Your task to perform on an android device: Go to Yahoo.com Image 0: 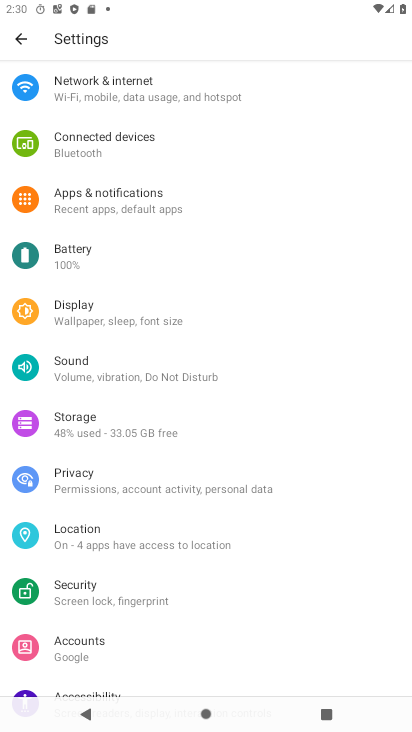
Step 0: press home button
Your task to perform on an android device: Go to Yahoo.com Image 1: 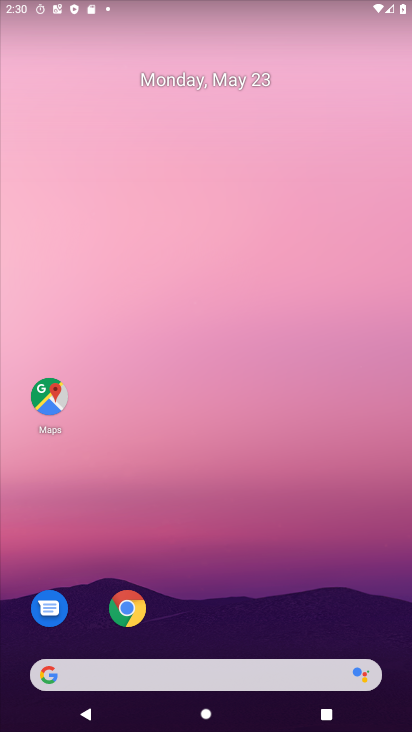
Step 1: click (126, 600)
Your task to perform on an android device: Go to Yahoo.com Image 2: 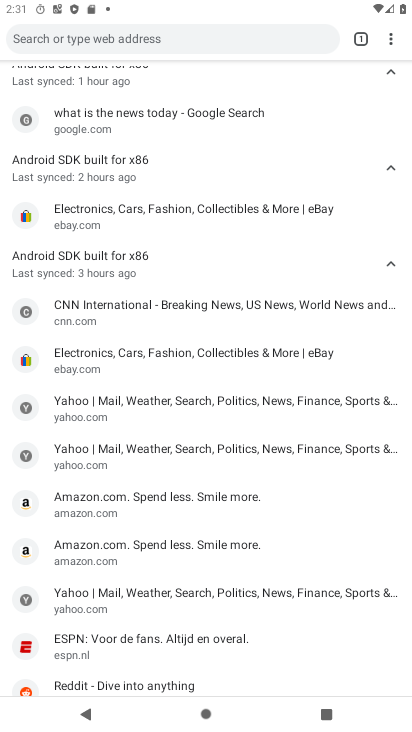
Step 2: click (143, 31)
Your task to perform on an android device: Go to Yahoo.com Image 3: 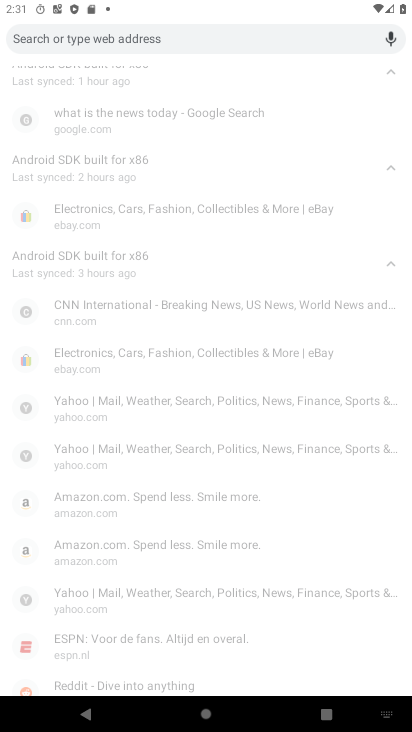
Step 3: type "yahoo.com"
Your task to perform on an android device: Go to Yahoo.com Image 4: 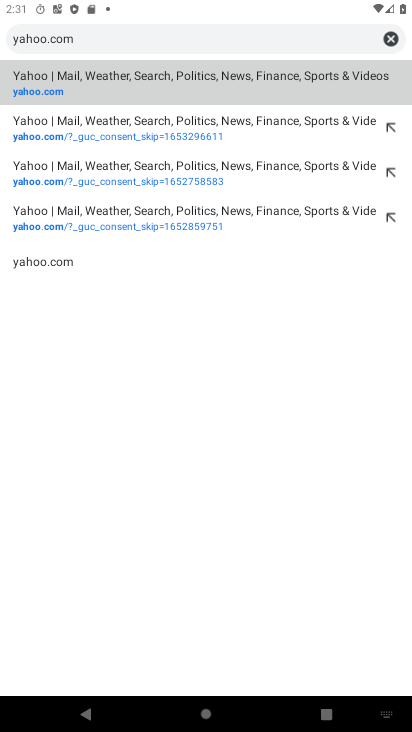
Step 4: click (188, 79)
Your task to perform on an android device: Go to Yahoo.com Image 5: 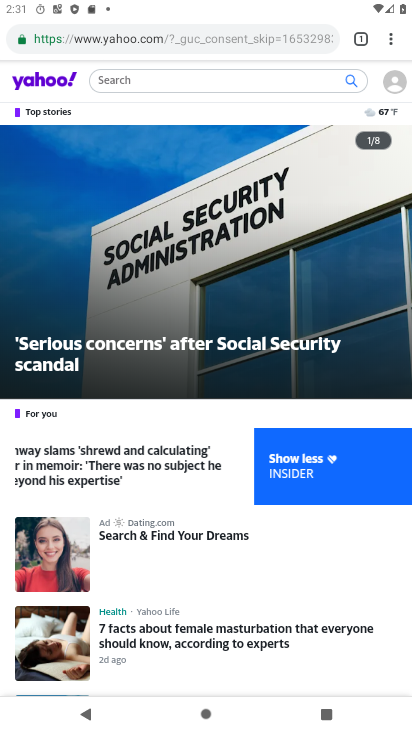
Step 5: task complete